Your task to perform on an android device: Open settings on Google Maps Image 0: 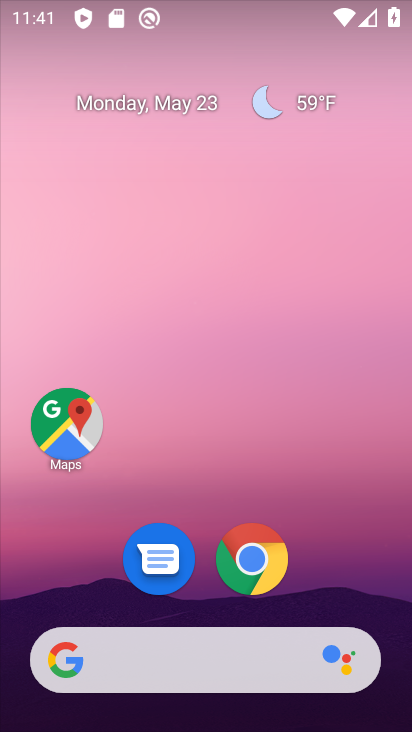
Step 0: click (79, 422)
Your task to perform on an android device: Open settings on Google Maps Image 1: 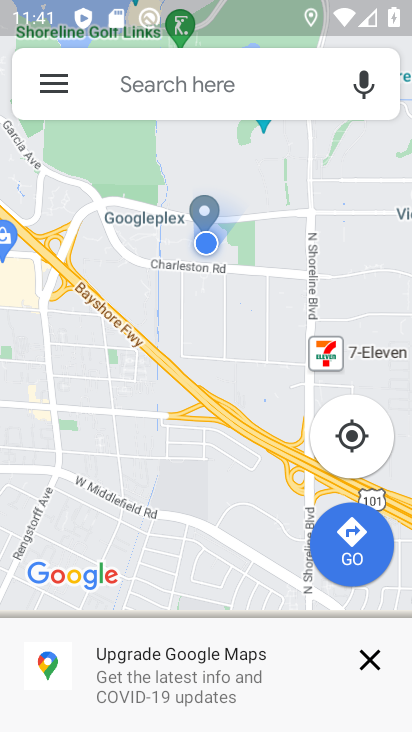
Step 1: click (36, 71)
Your task to perform on an android device: Open settings on Google Maps Image 2: 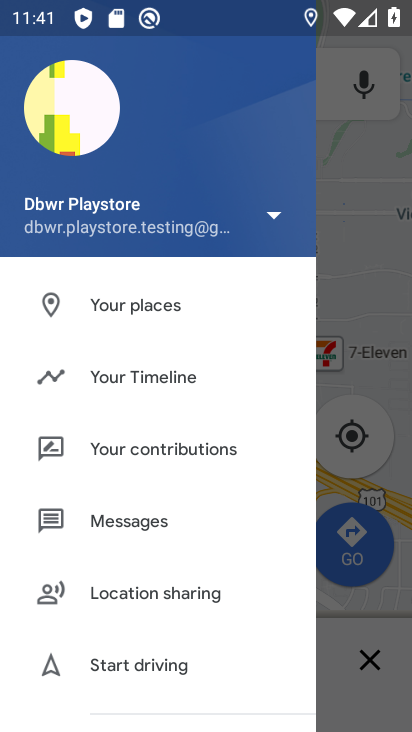
Step 2: drag from (230, 680) to (223, 275)
Your task to perform on an android device: Open settings on Google Maps Image 3: 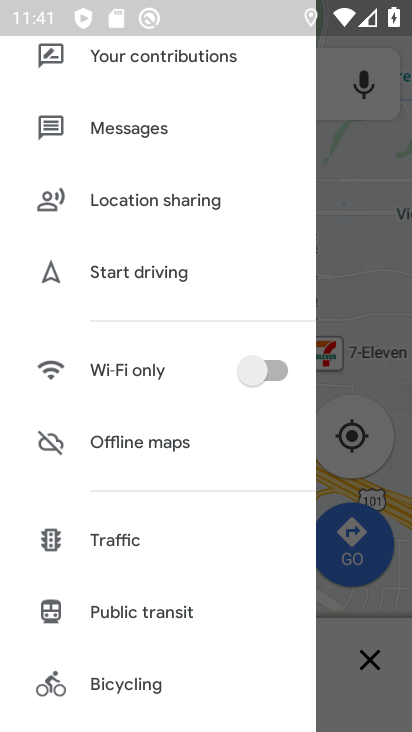
Step 3: drag from (228, 700) to (231, 106)
Your task to perform on an android device: Open settings on Google Maps Image 4: 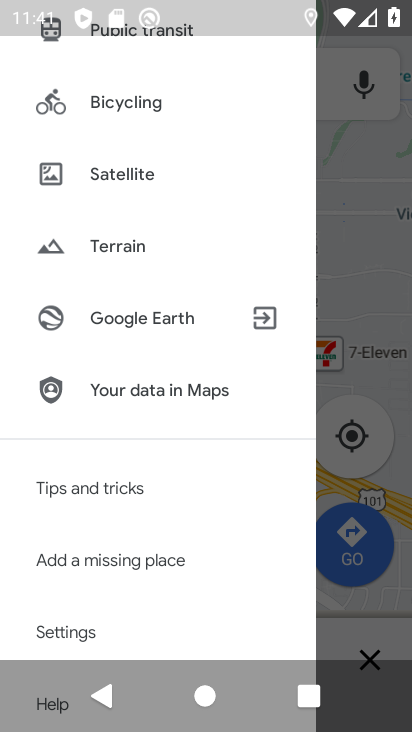
Step 4: click (70, 628)
Your task to perform on an android device: Open settings on Google Maps Image 5: 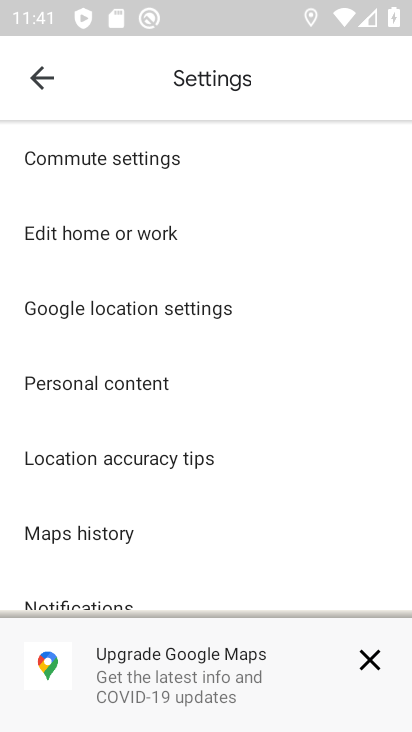
Step 5: task complete